Your task to perform on an android device: search for starred emails in the gmail app Image 0: 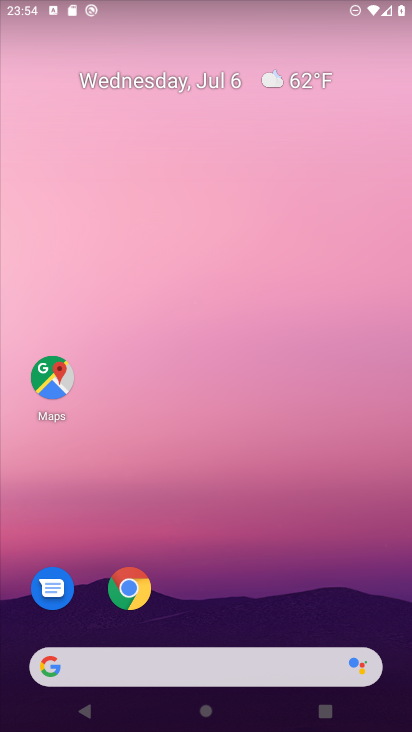
Step 0: drag from (374, 608) to (336, 11)
Your task to perform on an android device: search for starred emails in the gmail app Image 1: 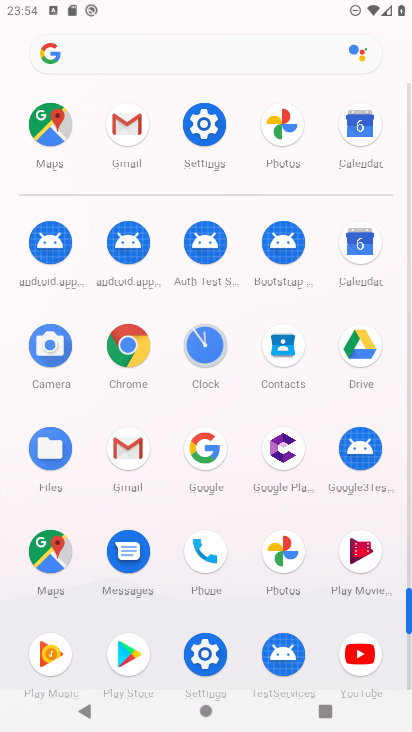
Step 1: click (126, 449)
Your task to perform on an android device: search for starred emails in the gmail app Image 2: 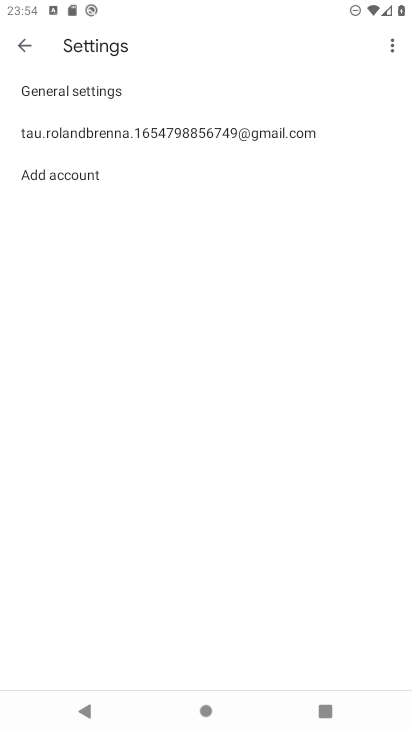
Step 2: press back button
Your task to perform on an android device: search for starred emails in the gmail app Image 3: 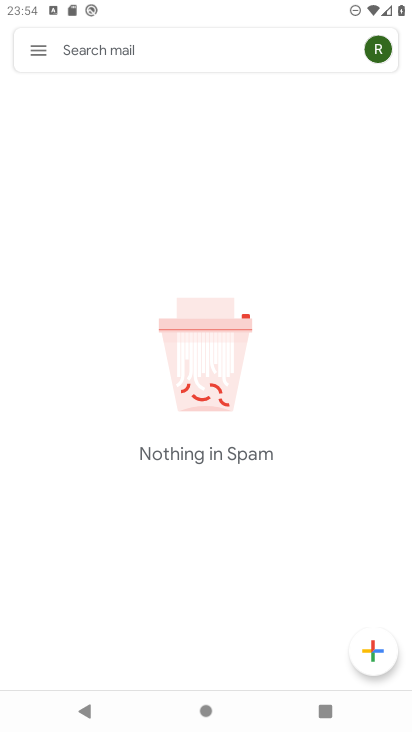
Step 3: click (32, 52)
Your task to perform on an android device: search for starred emails in the gmail app Image 4: 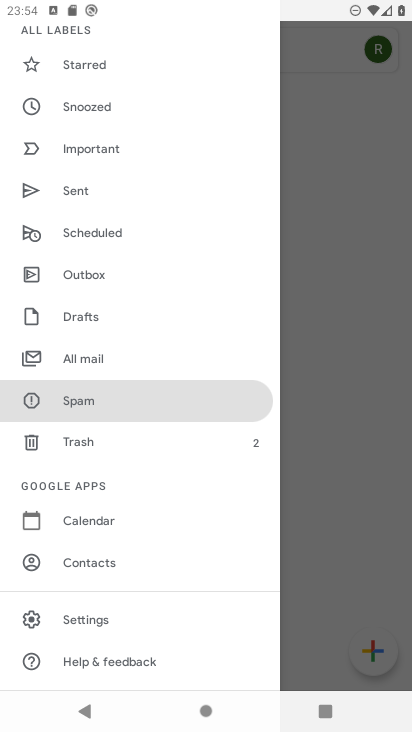
Step 4: drag from (153, 100) to (141, 285)
Your task to perform on an android device: search for starred emails in the gmail app Image 5: 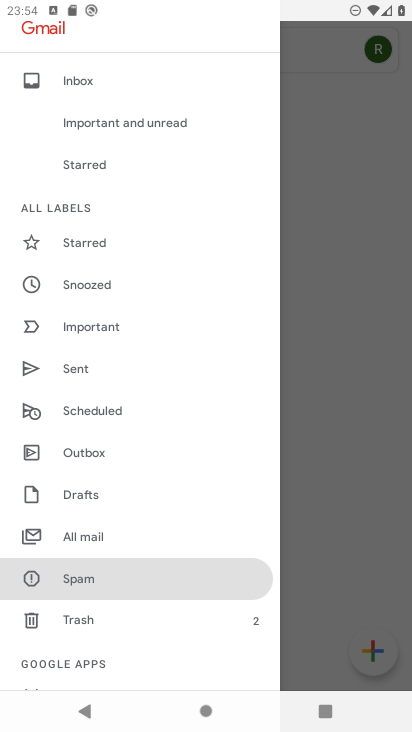
Step 5: click (75, 239)
Your task to perform on an android device: search for starred emails in the gmail app Image 6: 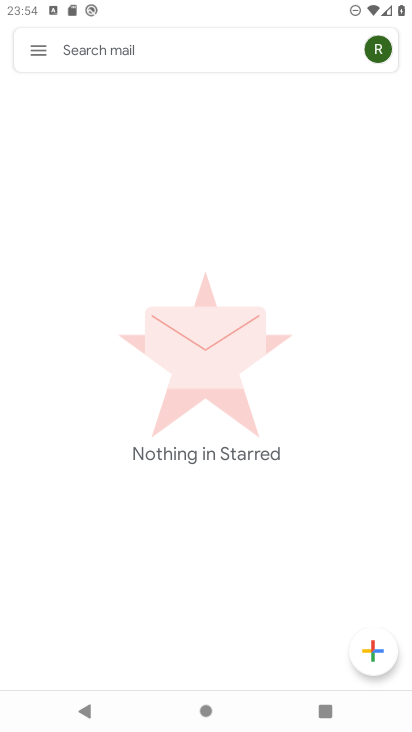
Step 6: task complete